Your task to perform on an android device: Open CNN.com Image 0: 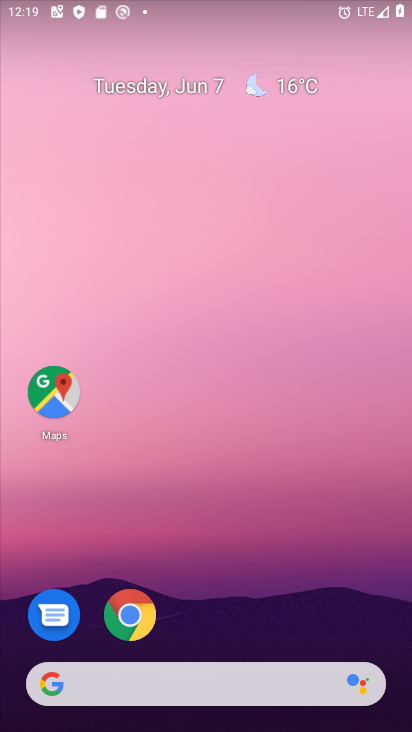
Step 0: press home button
Your task to perform on an android device: Open CNN.com Image 1: 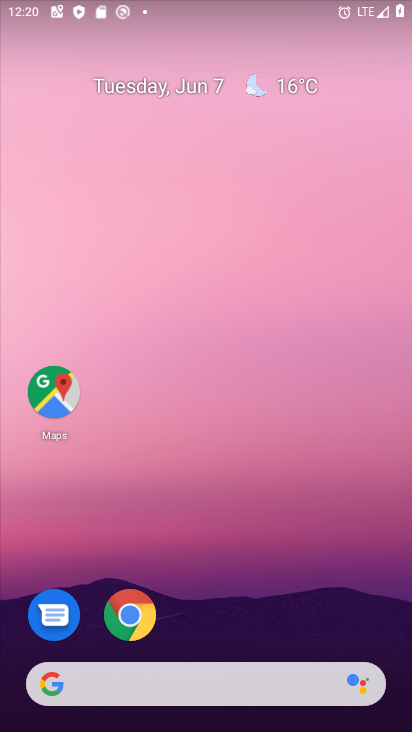
Step 1: click (131, 613)
Your task to perform on an android device: Open CNN.com Image 2: 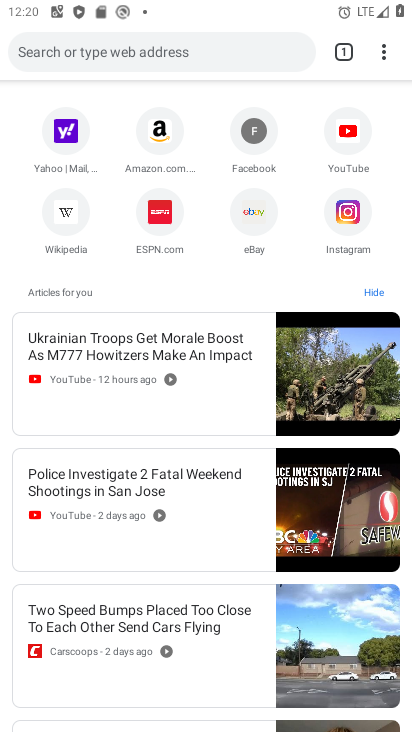
Step 2: click (132, 47)
Your task to perform on an android device: Open CNN.com Image 3: 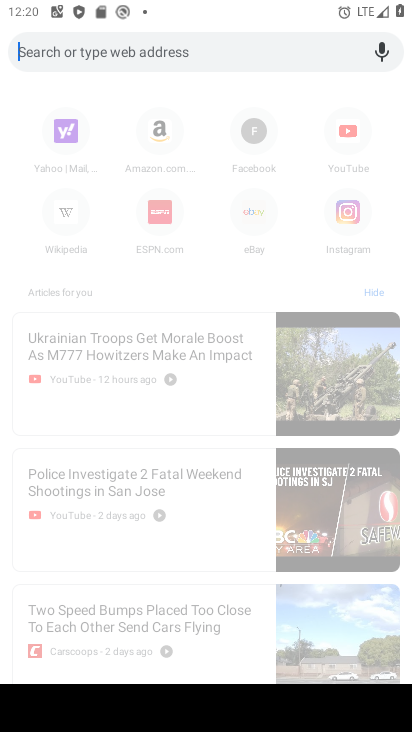
Step 3: type "cnn.com"
Your task to perform on an android device: Open CNN.com Image 4: 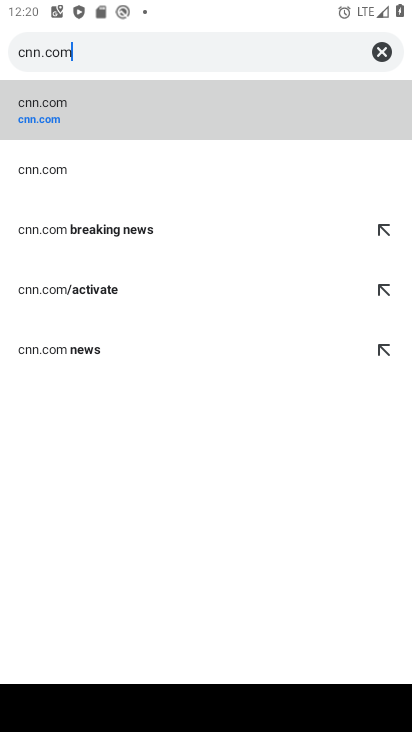
Step 4: click (49, 117)
Your task to perform on an android device: Open CNN.com Image 5: 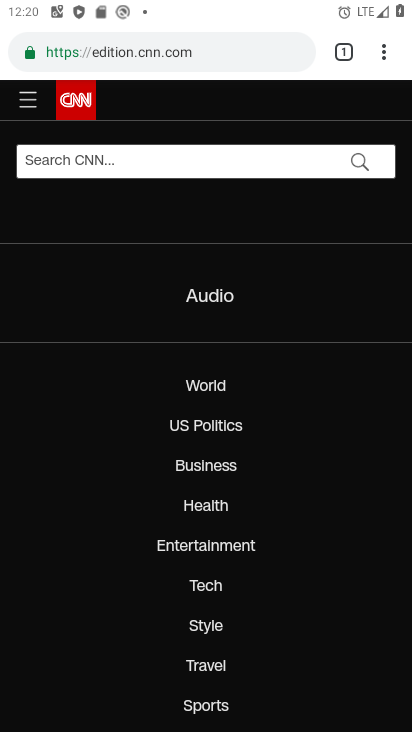
Step 5: task complete